Your task to perform on an android device: Open network settings Image 0: 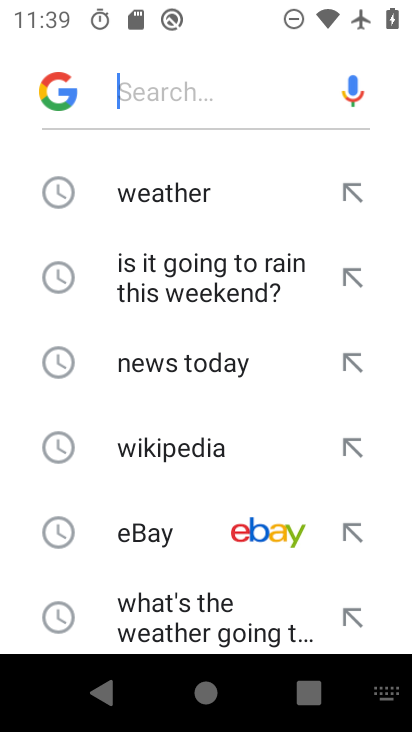
Step 0: press home button
Your task to perform on an android device: Open network settings Image 1: 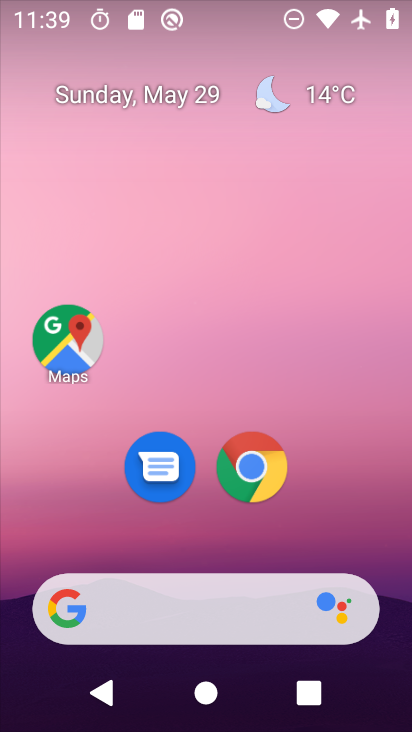
Step 1: drag from (222, 545) to (186, 139)
Your task to perform on an android device: Open network settings Image 2: 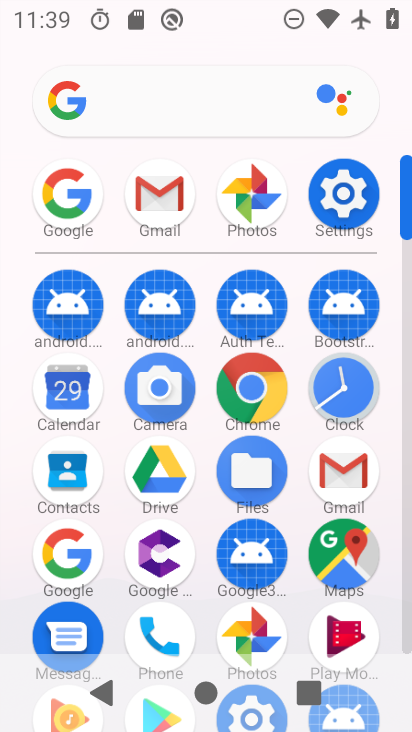
Step 2: click (325, 208)
Your task to perform on an android device: Open network settings Image 3: 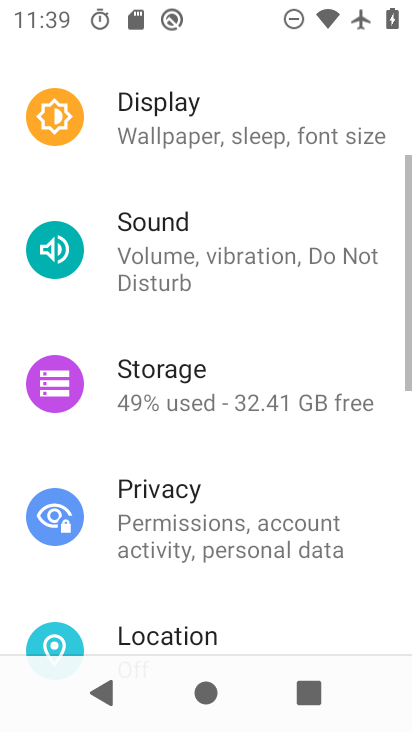
Step 3: drag from (211, 193) to (230, 507)
Your task to perform on an android device: Open network settings Image 4: 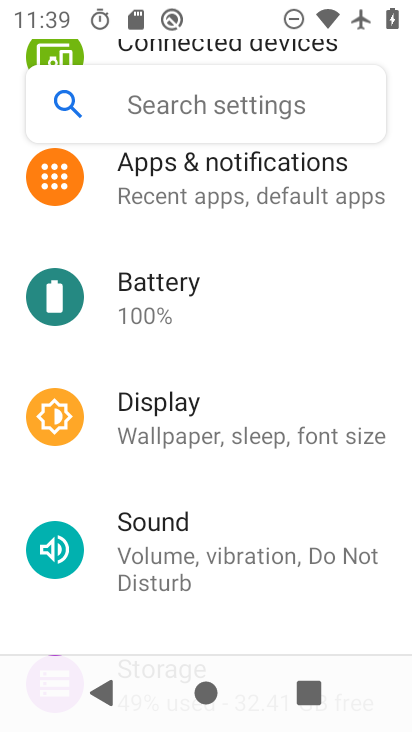
Step 4: drag from (212, 206) to (262, 574)
Your task to perform on an android device: Open network settings Image 5: 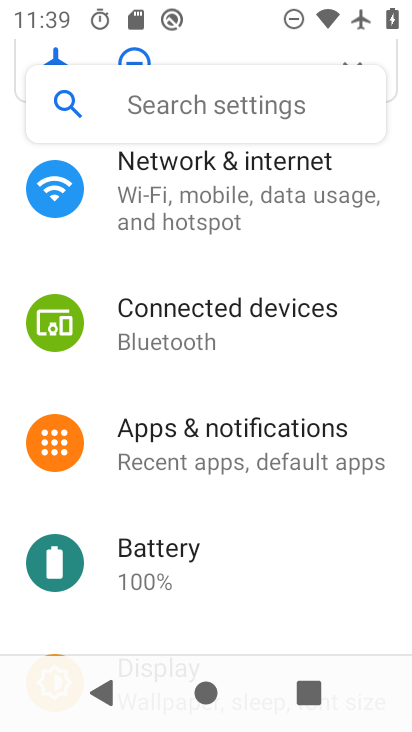
Step 5: click (204, 192)
Your task to perform on an android device: Open network settings Image 6: 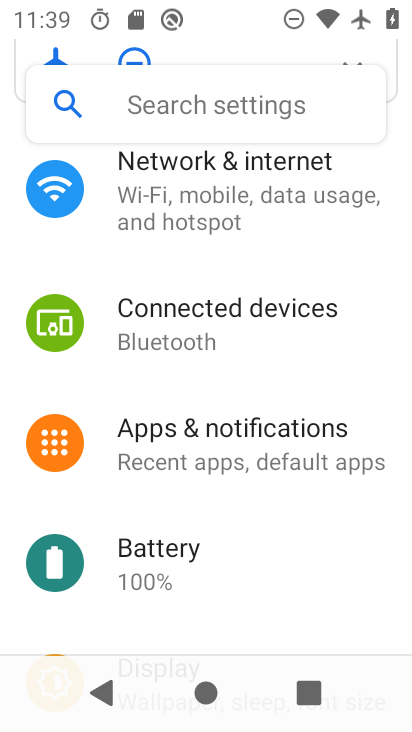
Step 6: click (172, 227)
Your task to perform on an android device: Open network settings Image 7: 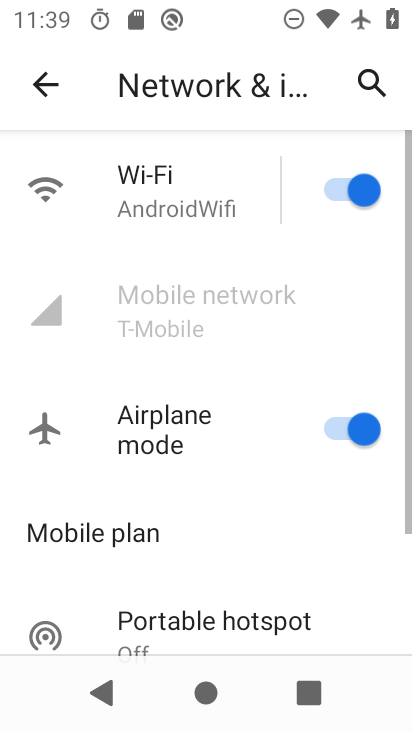
Step 7: click (164, 309)
Your task to perform on an android device: Open network settings Image 8: 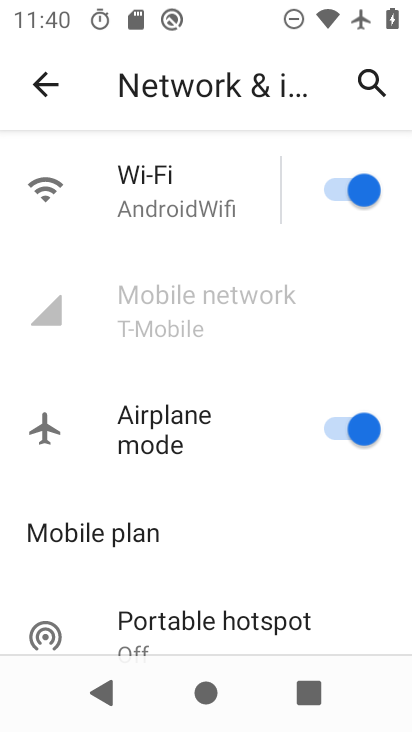
Step 8: task complete